Your task to perform on an android device: Check the weather Image 0: 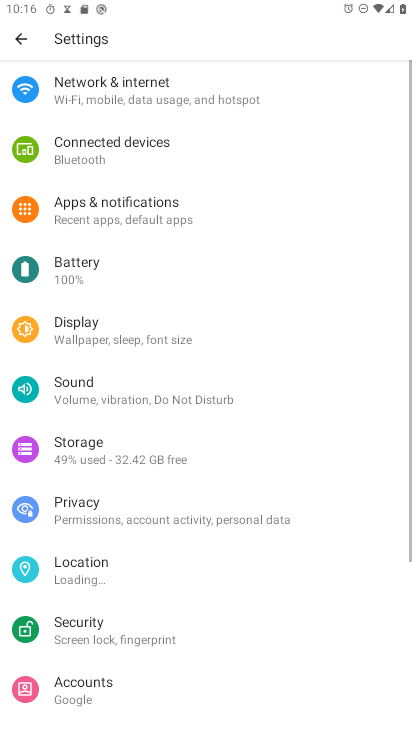
Step 0: press home button
Your task to perform on an android device: Check the weather Image 1: 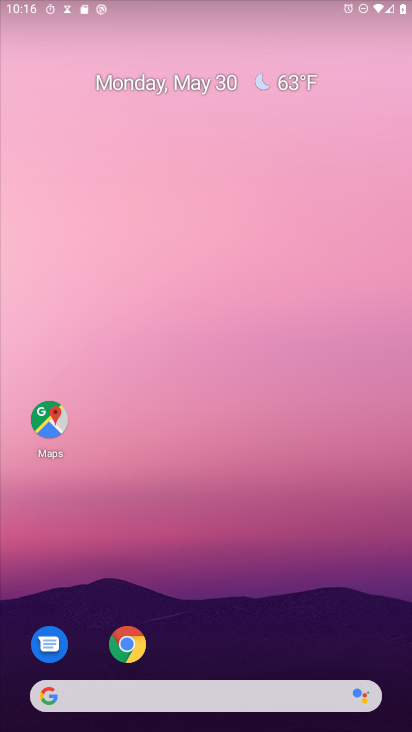
Step 1: drag from (249, 586) to (290, 0)
Your task to perform on an android device: Check the weather Image 2: 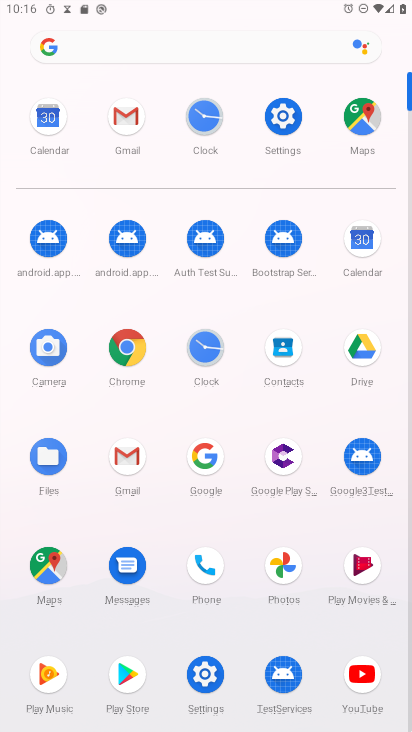
Step 2: click (211, 458)
Your task to perform on an android device: Check the weather Image 3: 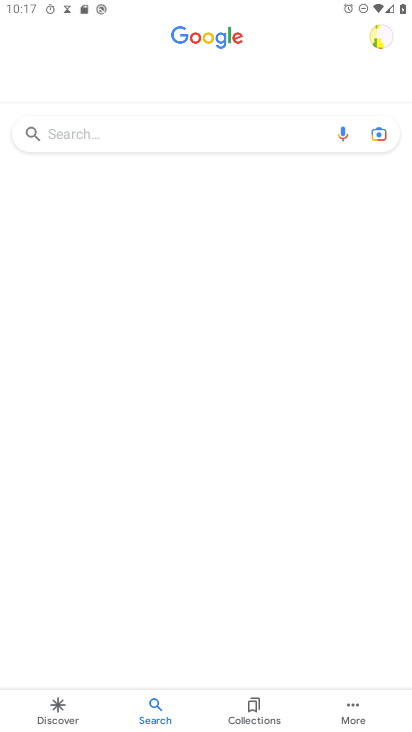
Step 3: click (138, 131)
Your task to perform on an android device: Check the weather Image 4: 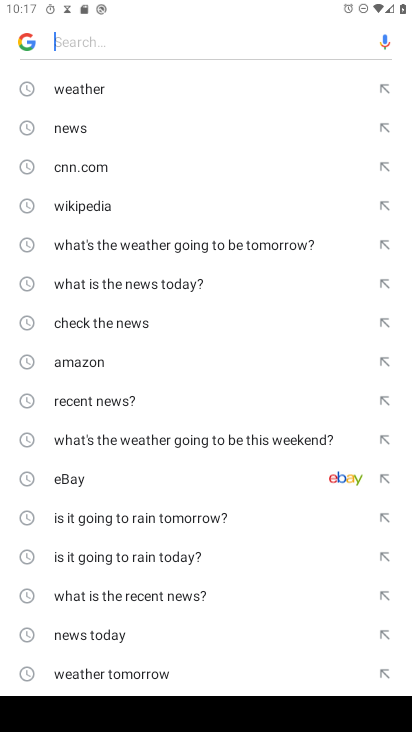
Step 4: click (103, 86)
Your task to perform on an android device: Check the weather Image 5: 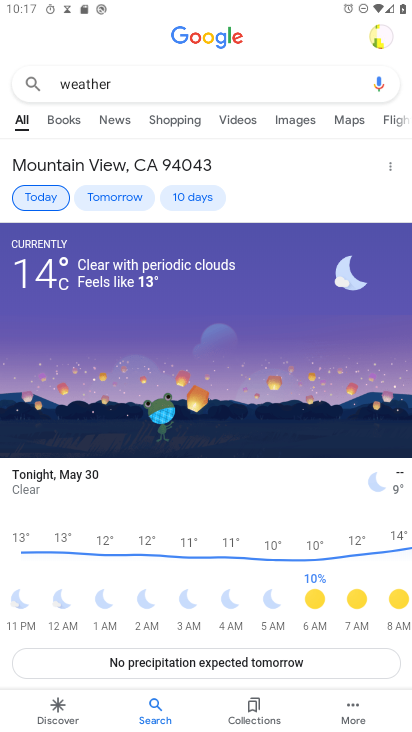
Step 5: task complete